Your task to perform on an android device: Open the web browser Image 0: 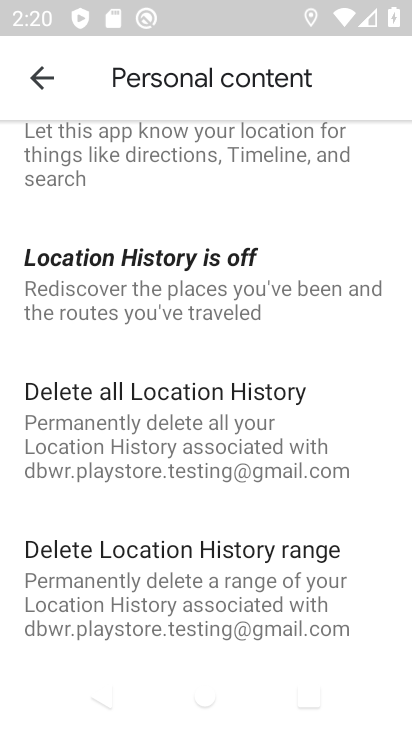
Step 0: press home button
Your task to perform on an android device: Open the web browser Image 1: 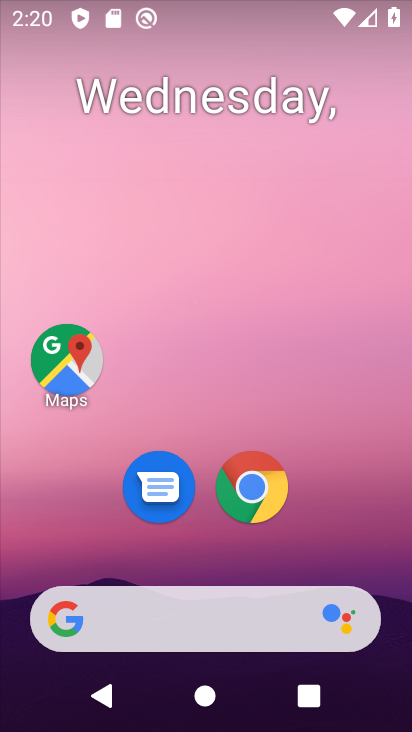
Step 1: click (263, 478)
Your task to perform on an android device: Open the web browser Image 2: 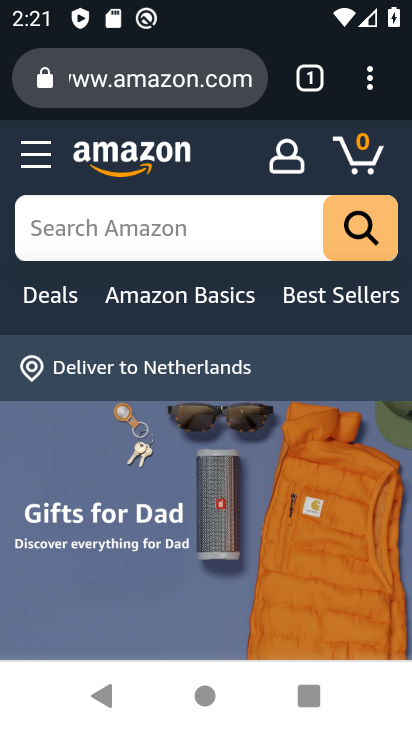
Step 2: task complete